Your task to perform on an android device: toggle improve location accuracy Image 0: 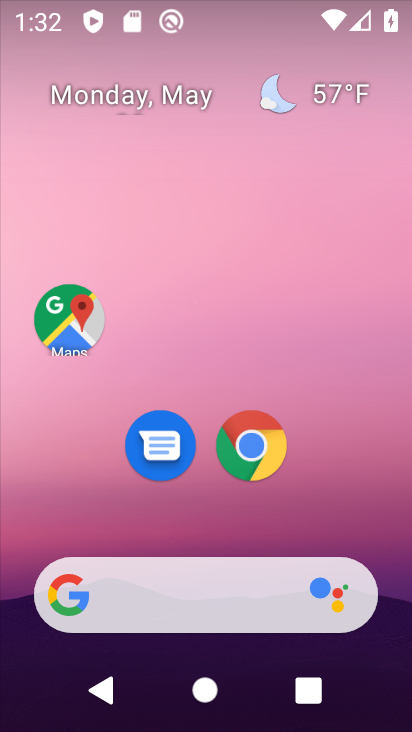
Step 0: drag from (202, 544) to (198, 146)
Your task to perform on an android device: toggle improve location accuracy Image 1: 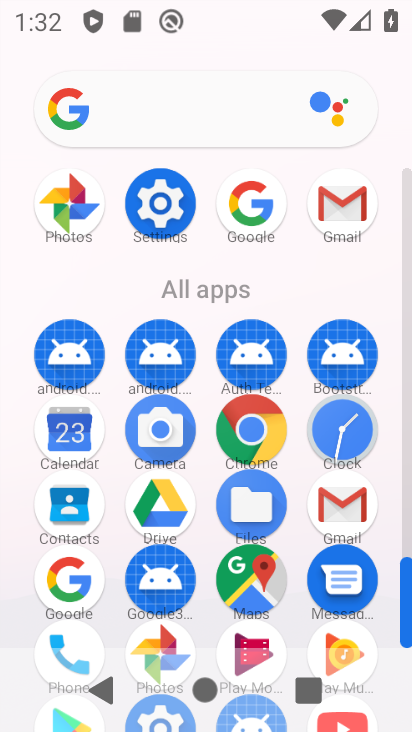
Step 1: click (162, 205)
Your task to perform on an android device: toggle improve location accuracy Image 2: 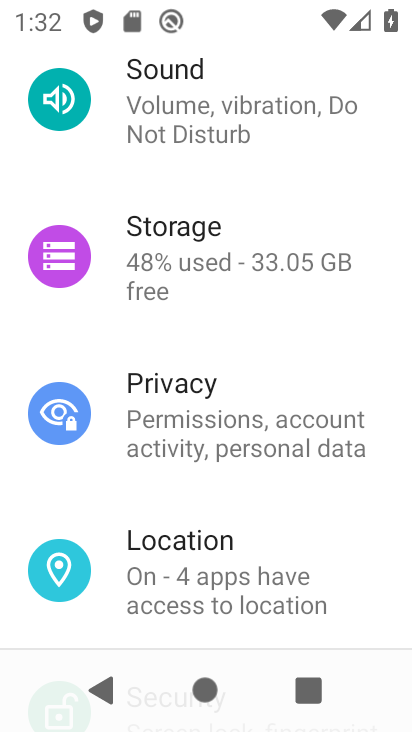
Step 2: click (204, 577)
Your task to perform on an android device: toggle improve location accuracy Image 3: 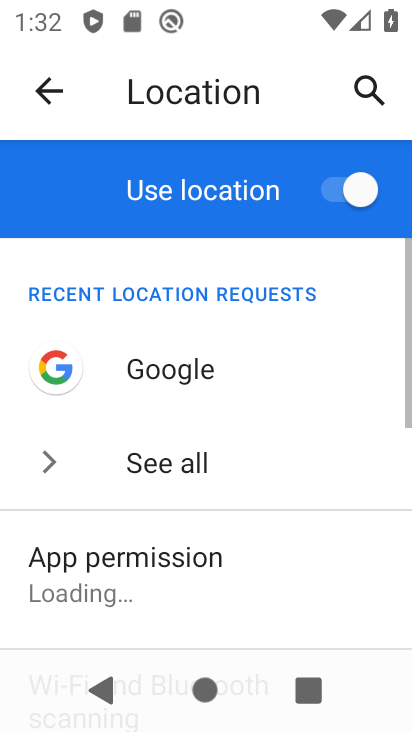
Step 3: drag from (277, 575) to (305, 91)
Your task to perform on an android device: toggle improve location accuracy Image 4: 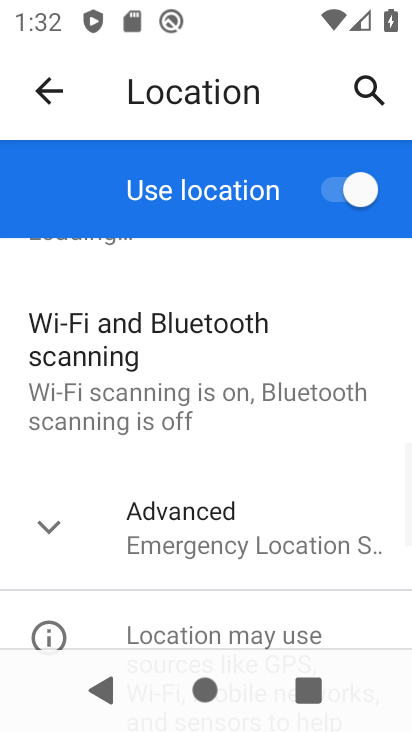
Step 4: drag from (234, 560) to (247, 194)
Your task to perform on an android device: toggle improve location accuracy Image 5: 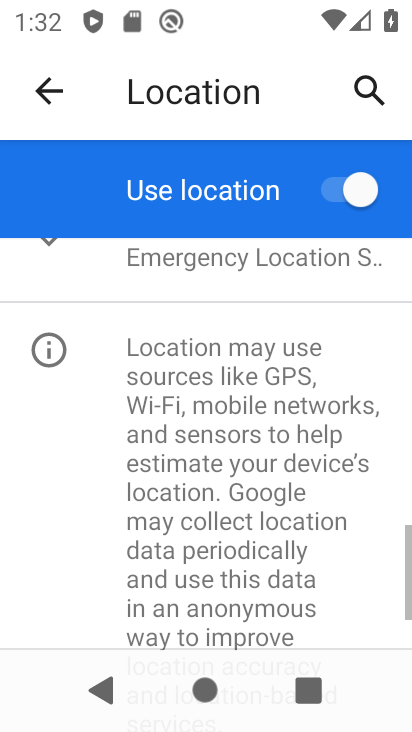
Step 5: click (135, 259)
Your task to perform on an android device: toggle improve location accuracy Image 6: 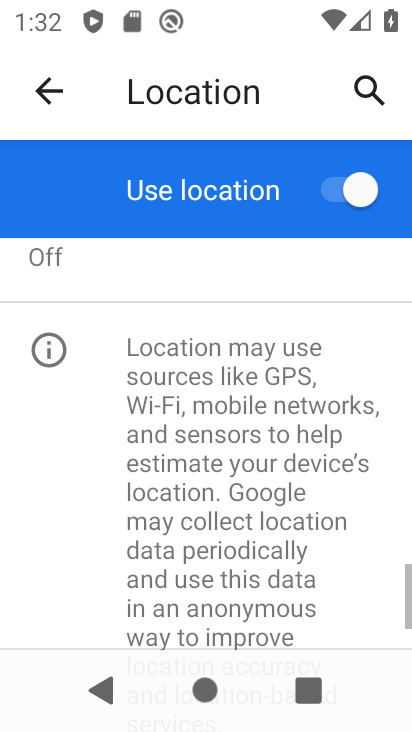
Step 6: drag from (209, 499) to (240, 704)
Your task to perform on an android device: toggle improve location accuracy Image 7: 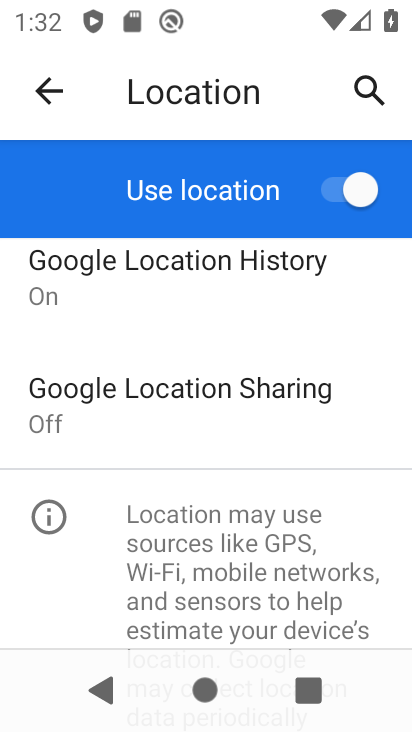
Step 7: drag from (219, 319) to (229, 553)
Your task to perform on an android device: toggle improve location accuracy Image 8: 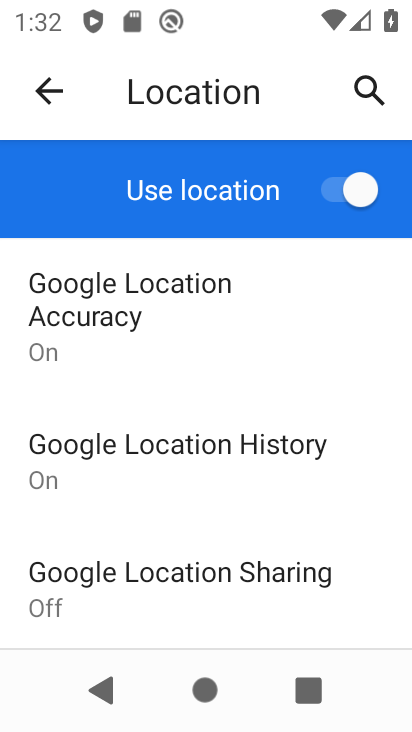
Step 8: click (151, 302)
Your task to perform on an android device: toggle improve location accuracy Image 9: 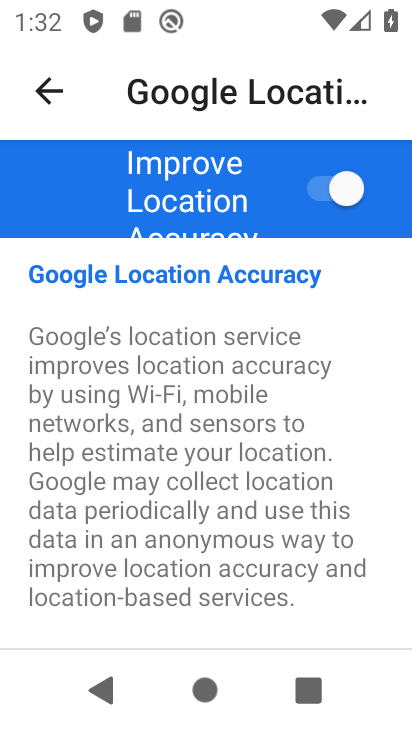
Step 9: click (355, 185)
Your task to perform on an android device: toggle improve location accuracy Image 10: 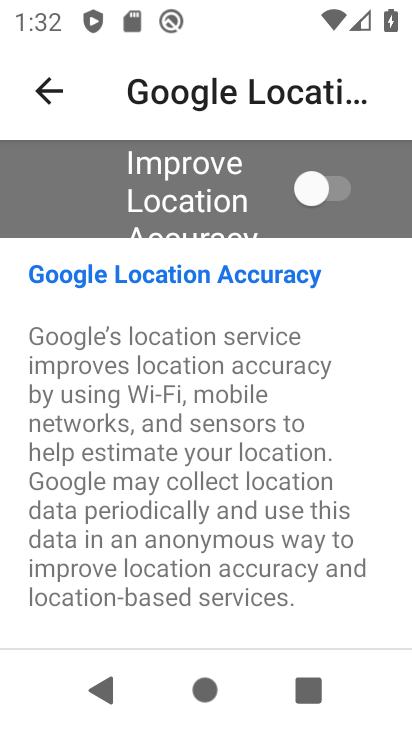
Step 10: task complete